Your task to perform on an android device: Open Chrome and go to the settings page Image 0: 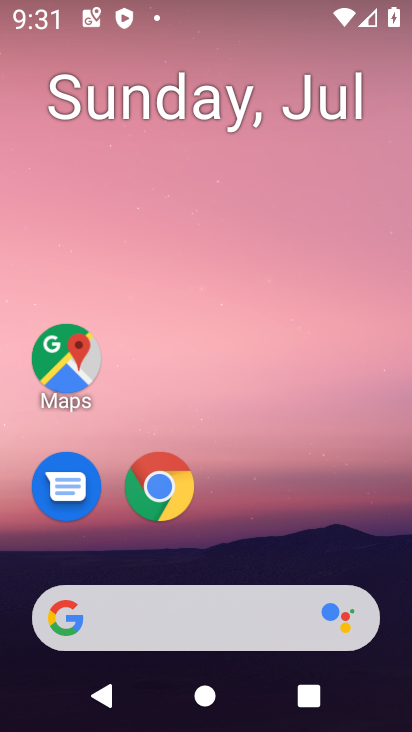
Step 0: press home button
Your task to perform on an android device: Open Chrome and go to the settings page Image 1: 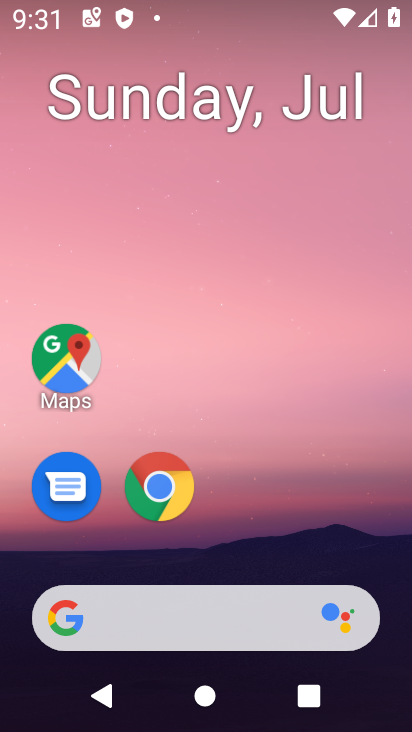
Step 1: drag from (381, 567) to (357, 131)
Your task to perform on an android device: Open Chrome and go to the settings page Image 2: 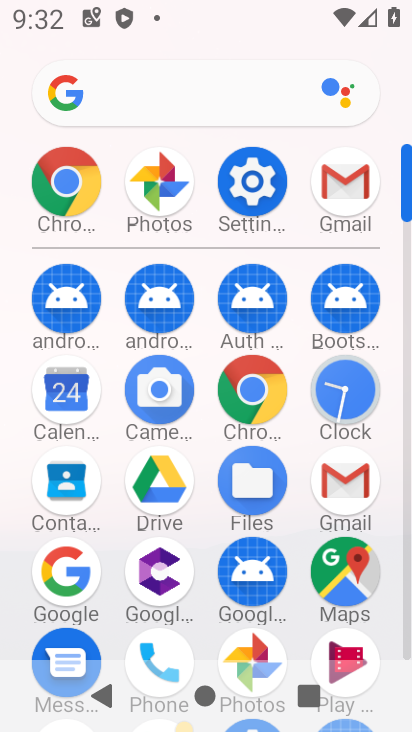
Step 2: click (252, 399)
Your task to perform on an android device: Open Chrome and go to the settings page Image 3: 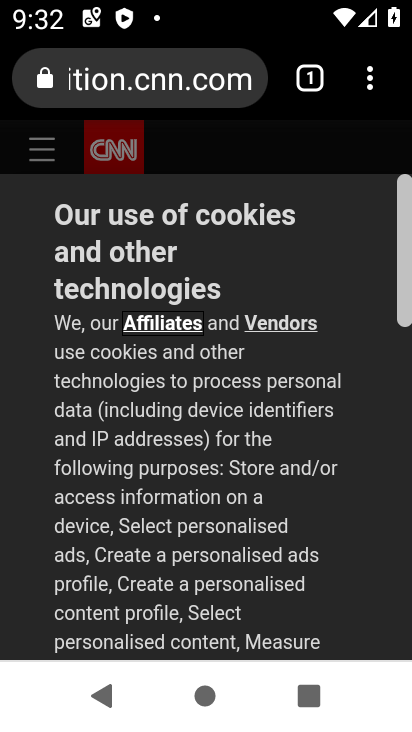
Step 3: click (373, 88)
Your task to perform on an android device: Open Chrome and go to the settings page Image 4: 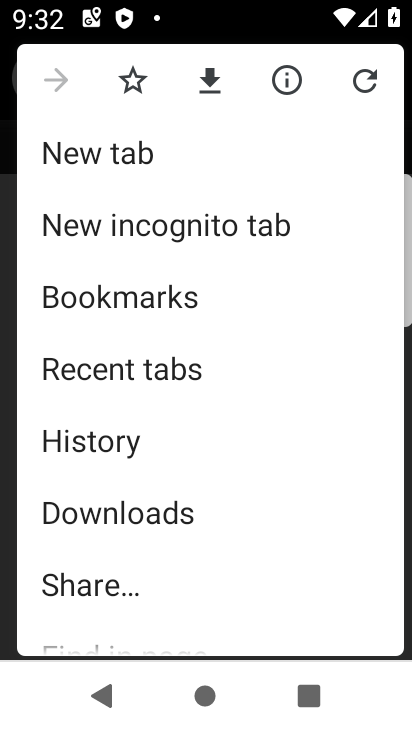
Step 4: drag from (292, 466) to (295, 373)
Your task to perform on an android device: Open Chrome and go to the settings page Image 5: 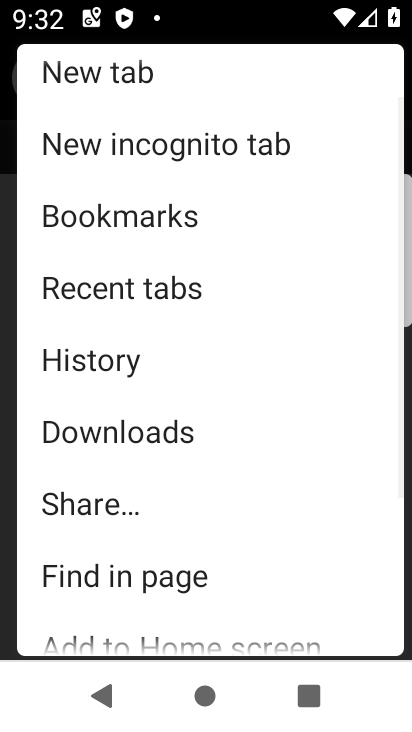
Step 5: drag from (289, 475) to (289, 380)
Your task to perform on an android device: Open Chrome and go to the settings page Image 6: 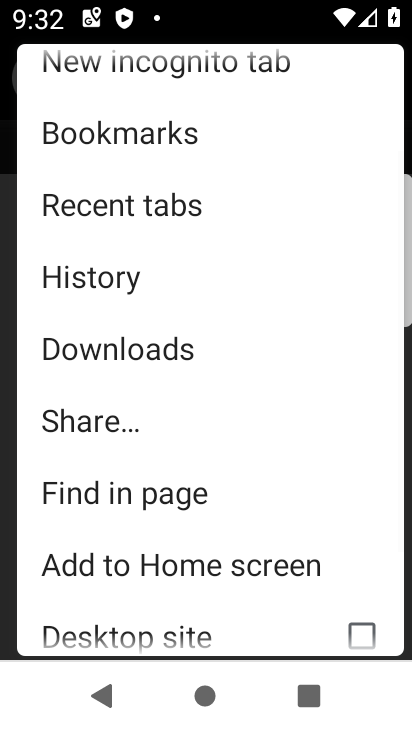
Step 6: drag from (302, 511) to (301, 421)
Your task to perform on an android device: Open Chrome and go to the settings page Image 7: 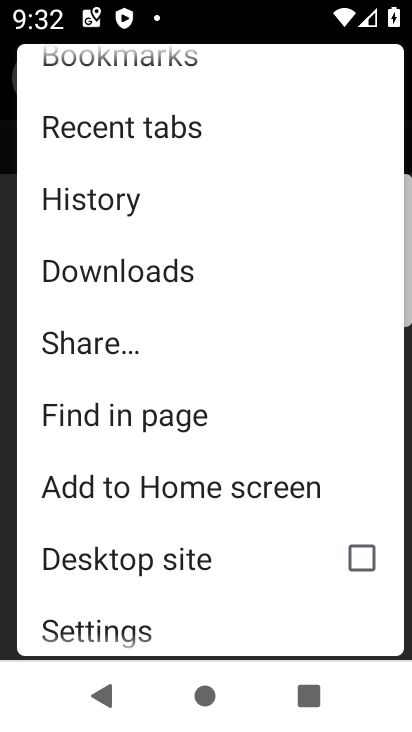
Step 7: drag from (279, 528) to (283, 423)
Your task to perform on an android device: Open Chrome and go to the settings page Image 8: 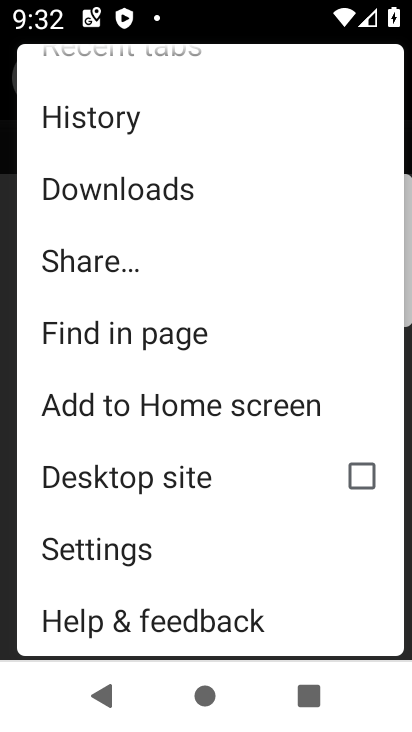
Step 8: click (151, 555)
Your task to perform on an android device: Open Chrome and go to the settings page Image 9: 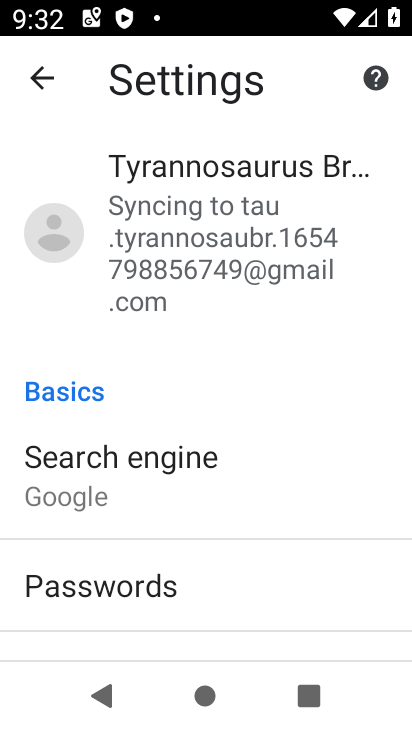
Step 9: task complete